Your task to perform on an android device: Go to battery settings Image 0: 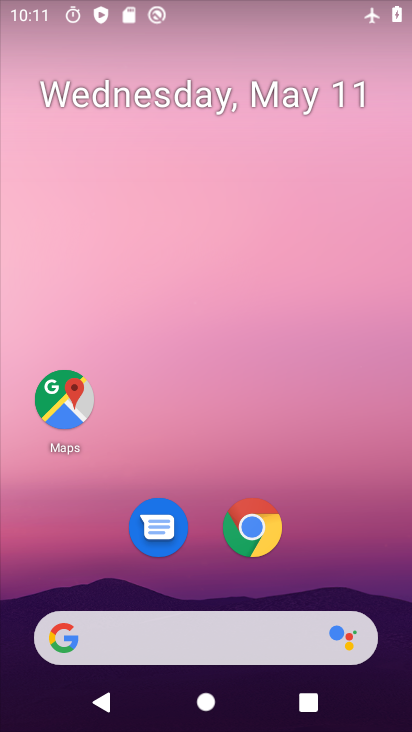
Step 0: drag from (208, 512) to (228, 245)
Your task to perform on an android device: Go to battery settings Image 1: 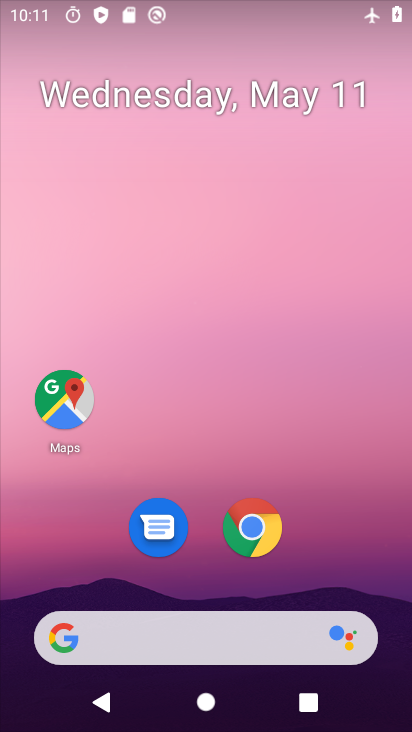
Step 1: drag from (143, 600) to (192, 216)
Your task to perform on an android device: Go to battery settings Image 2: 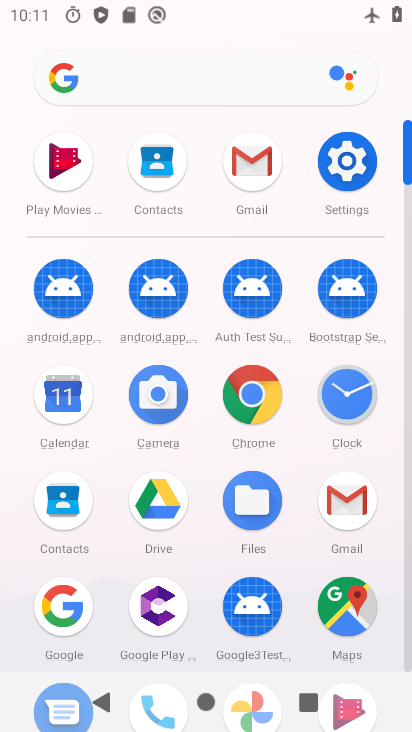
Step 2: click (329, 151)
Your task to perform on an android device: Go to battery settings Image 3: 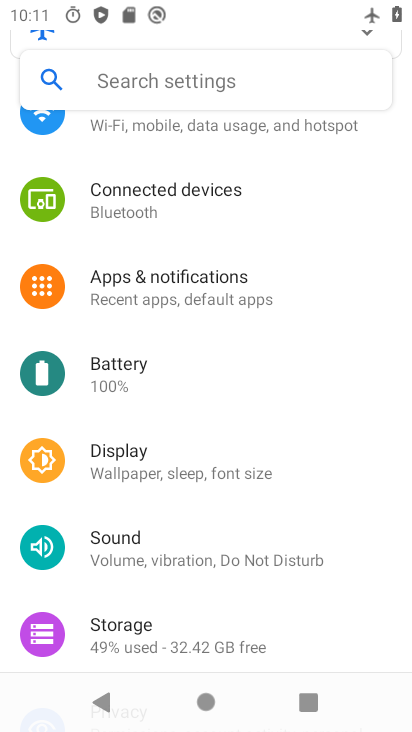
Step 3: click (199, 379)
Your task to perform on an android device: Go to battery settings Image 4: 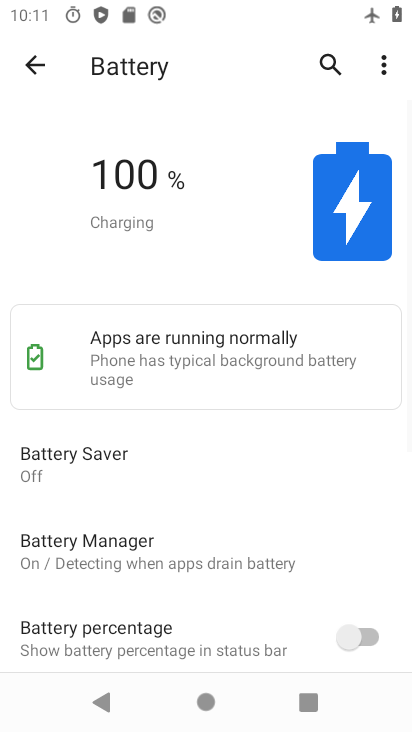
Step 4: drag from (181, 592) to (216, 312)
Your task to perform on an android device: Go to battery settings Image 5: 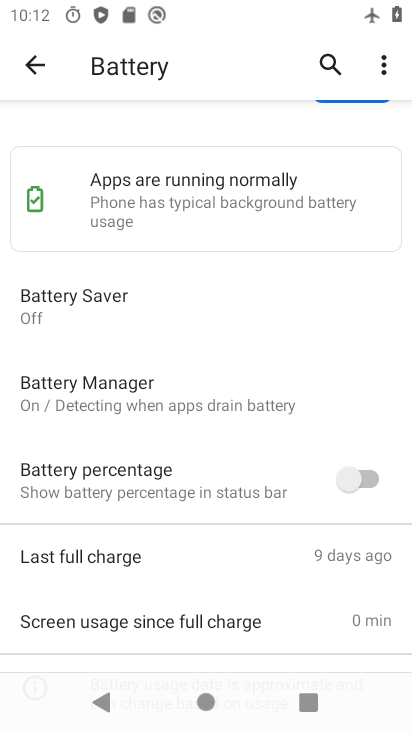
Step 5: drag from (232, 539) to (231, 354)
Your task to perform on an android device: Go to battery settings Image 6: 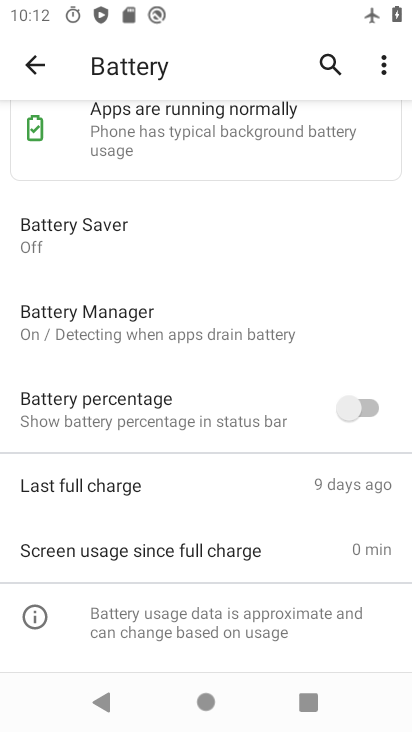
Step 6: click (229, 353)
Your task to perform on an android device: Go to battery settings Image 7: 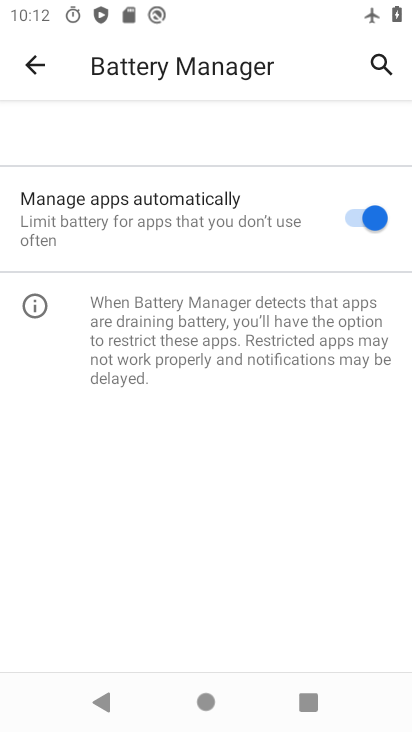
Step 7: task complete